Your task to perform on an android device: toggle airplane mode Image 0: 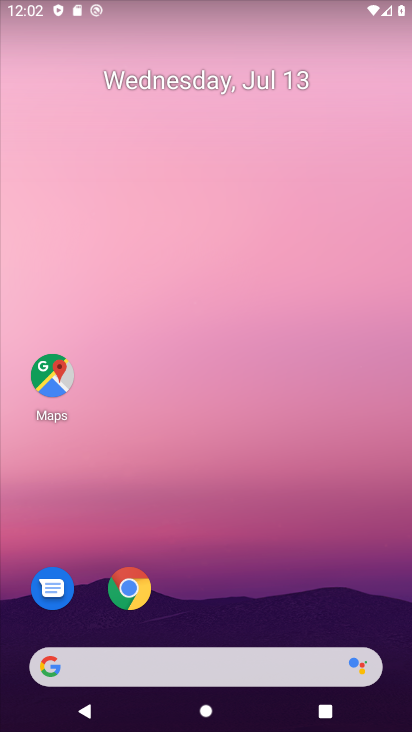
Step 0: drag from (209, 588) to (183, 272)
Your task to perform on an android device: toggle airplane mode Image 1: 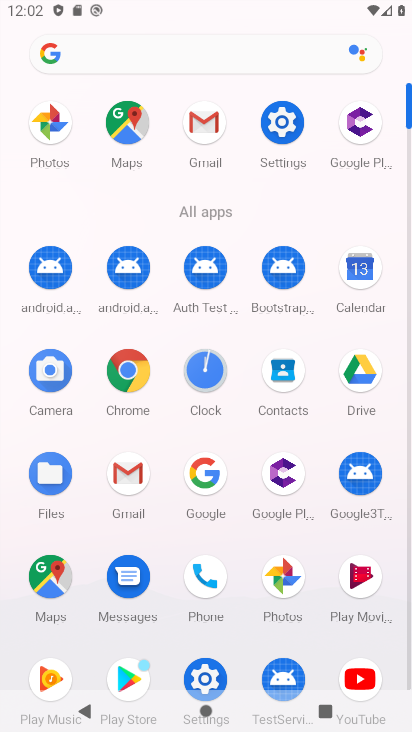
Step 1: click (287, 129)
Your task to perform on an android device: toggle airplane mode Image 2: 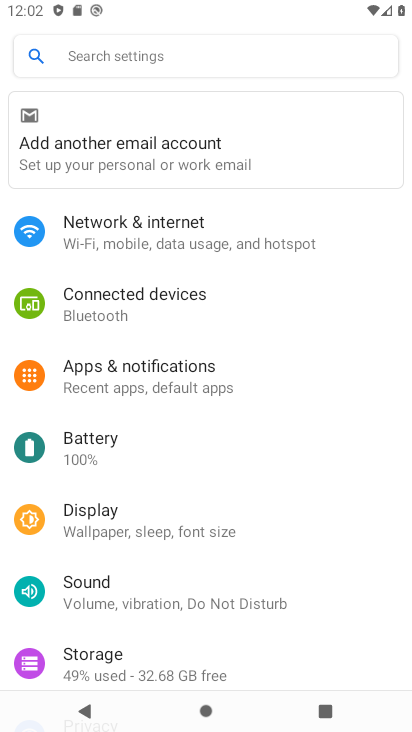
Step 2: click (94, 218)
Your task to perform on an android device: toggle airplane mode Image 3: 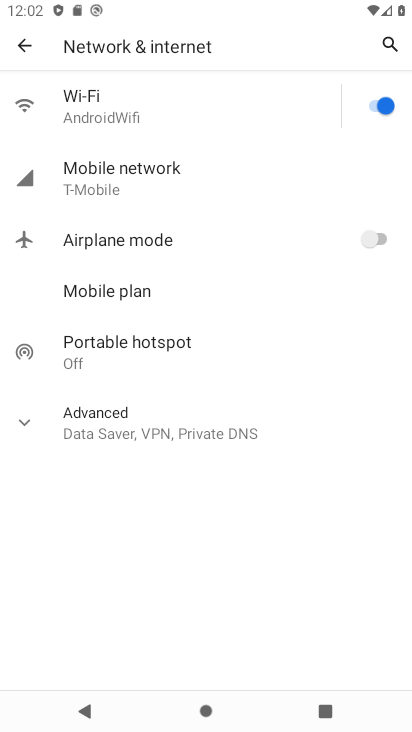
Step 3: click (382, 237)
Your task to perform on an android device: toggle airplane mode Image 4: 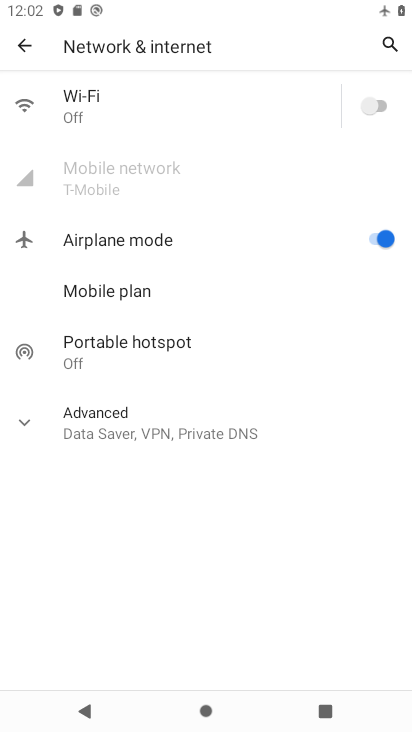
Step 4: task complete